Your task to perform on an android device: Search for seafood restaurants on Google Maps Image 0: 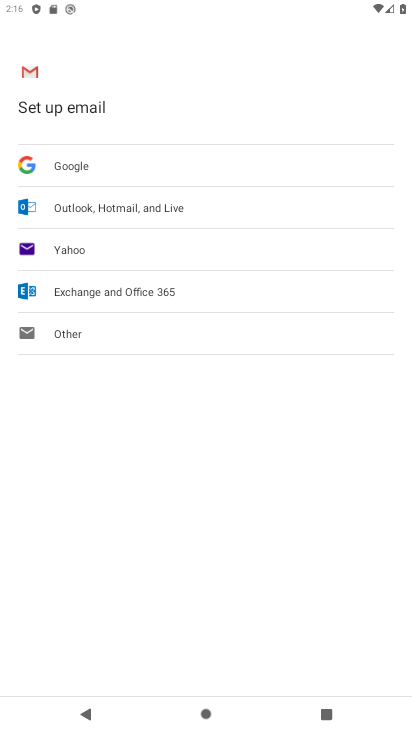
Step 0: press home button
Your task to perform on an android device: Search for seafood restaurants on Google Maps Image 1: 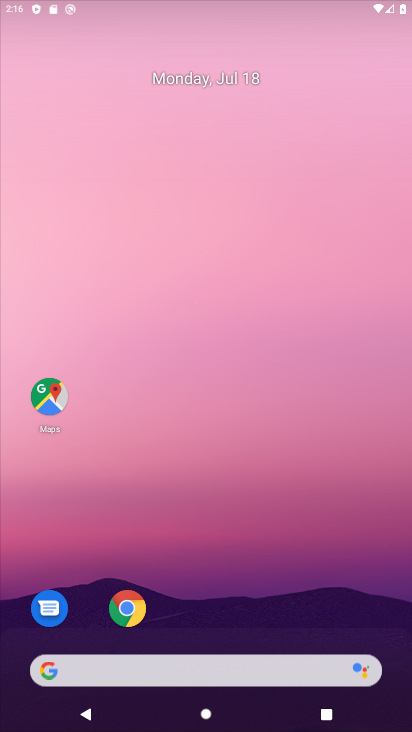
Step 1: drag from (306, 660) to (341, 140)
Your task to perform on an android device: Search for seafood restaurants on Google Maps Image 2: 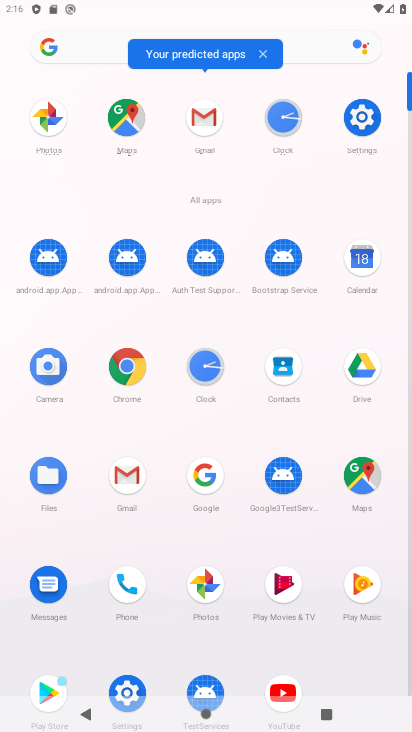
Step 2: click (364, 482)
Your task to perform on an android device: Search for seafood restaurants on Google Maps Image 3: 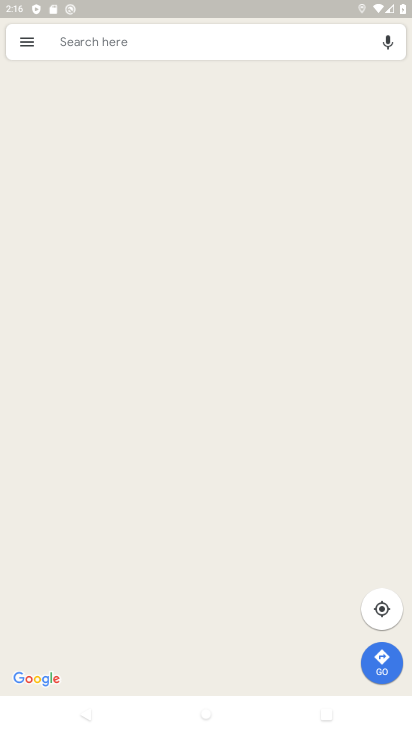
Step 3: click (96, 56)
Your task to perform on an android device: Search for seafood restaurants on Google Maps Image 4: 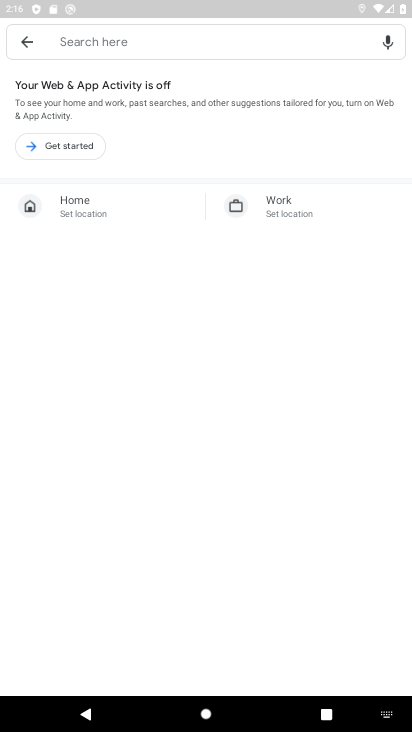
Step 4: type "seafood restaurants"
Your task to perform on an android device: Search for seafood restaurants on Google Maps Image 5: 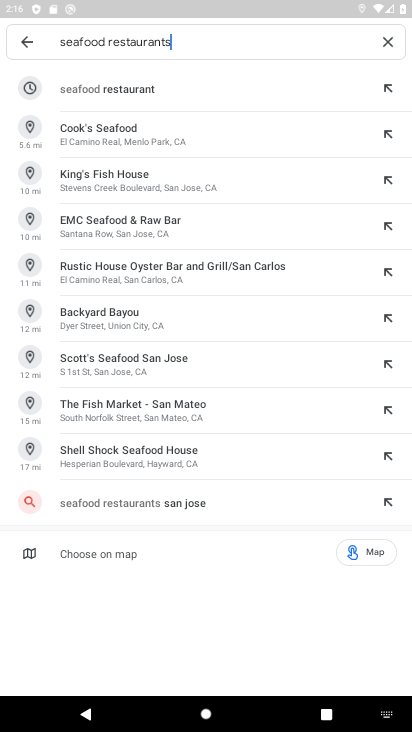
Step 5: click (190, 79)
Your task to perform on an android device: Search for seafood restaurants on Google Maps Image 6: 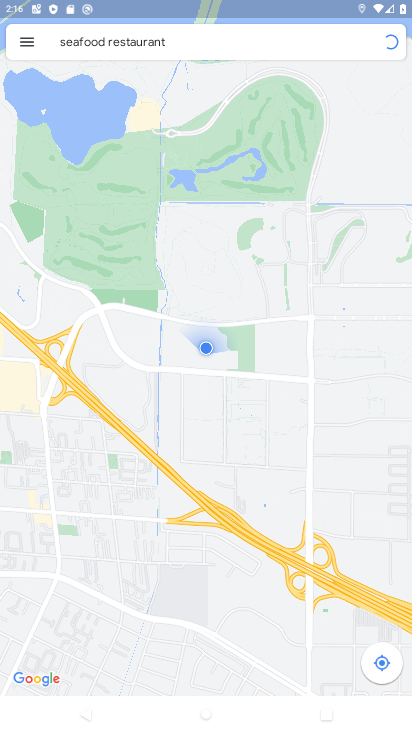
Step 6: task complete